Your task to perform on an android device: toggle notifications settings in the gmail app Image 0: 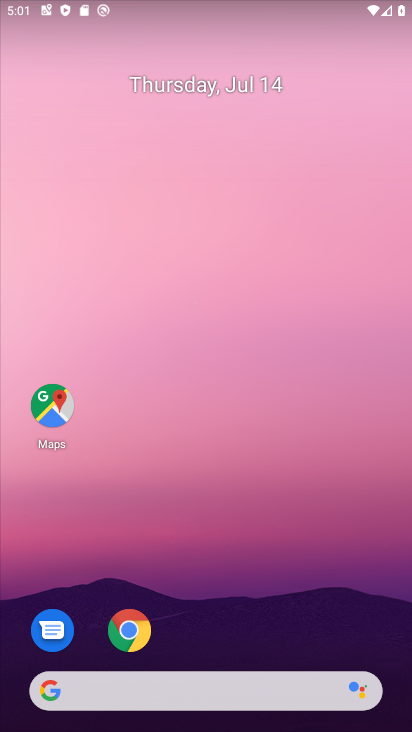
Step 0: drag from (343, 675) to (392, 248)
Your task to perform on an android device: toggle notifications settings in the gmail app Image 1: 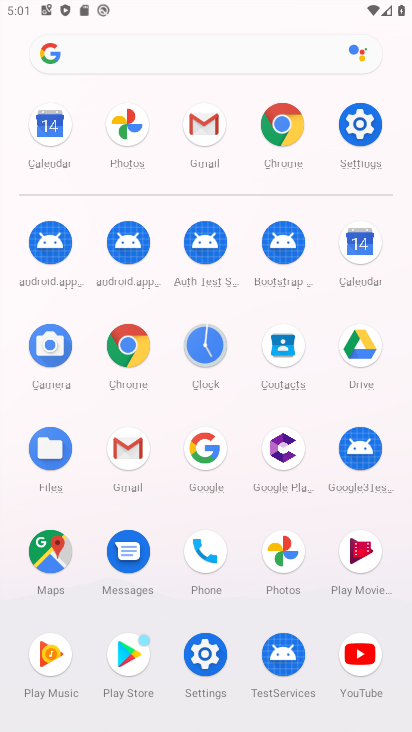
Step 1: click (137, 442)
Your task to perform on an android device: toggle notifications settings in the gmail app Image 2: 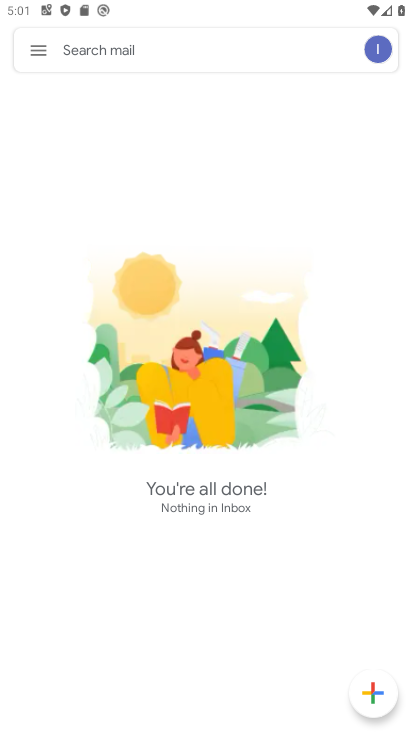
Step 2: click (26, 41)
Your task to perform on an android device: toggle notifications settings in the gmail app Image 3: 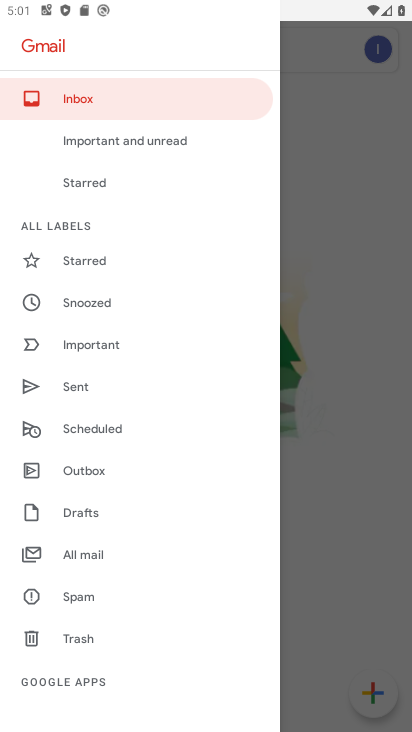
Step 3: drag from (189, 645) to (191, 236)
Your task to perform on an android device: toggle notifications settings in the gmail app Image 4: 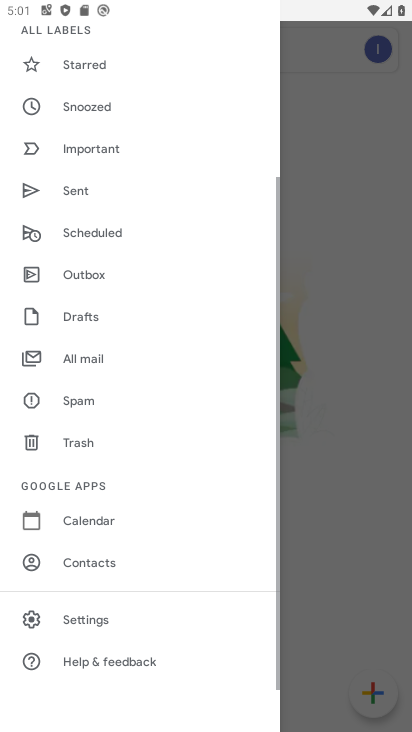
Step 4: click (114, 629)
Your task to perform on an android device: toggle notifications settings in the gmail app Image 5: 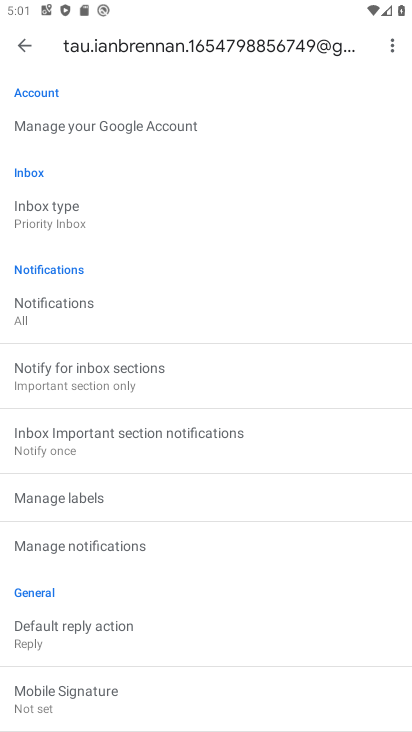
Step 5: click (137, 536)
Your task to perform on an android device: toggle notifications settings in the gmail app Image 6: 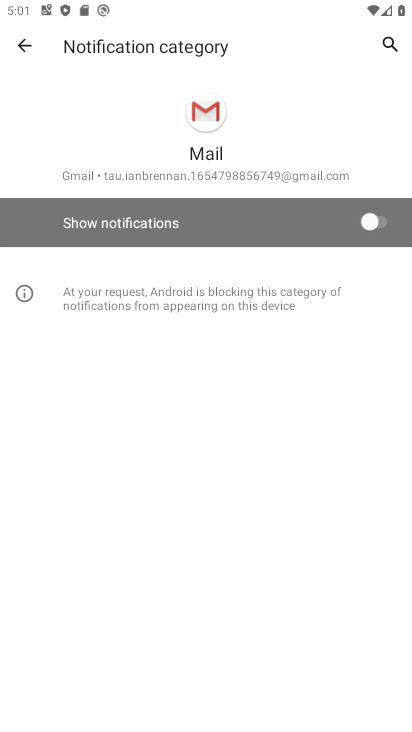
Step 6: click (369, 216)
Your task to perform on an android device: toggle notifications settings in the gmail app Image 7: 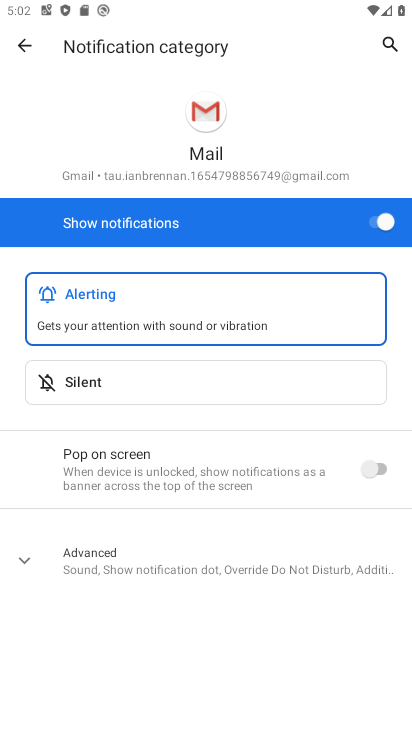
Step 7: task complete